Your task to perform on an android device: turn off javascript in the chrome app Image 0: 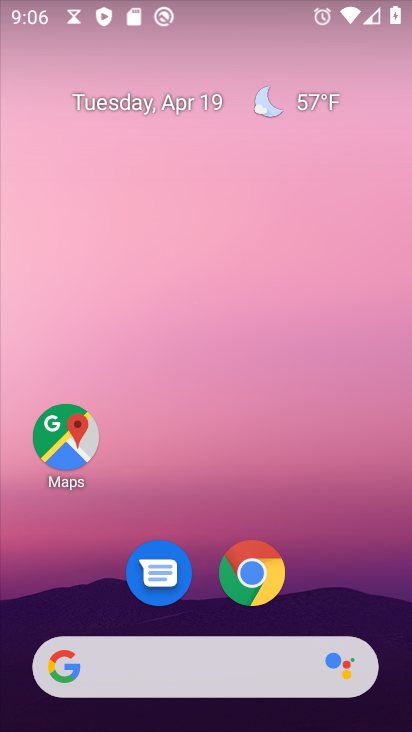
Step 0: click (249, 588)
Your task to perform on an android device: turn off javascript in the chrome app Image 1: 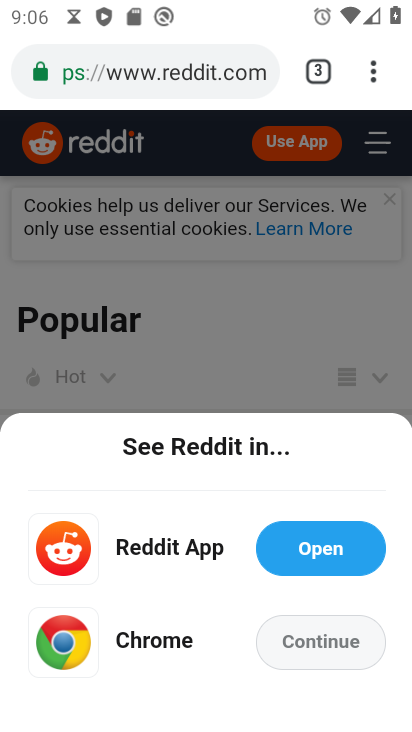
Step 1: click (367, 82)
Your task to perform on an android device: turn off javascript in the chrome app Image 2: 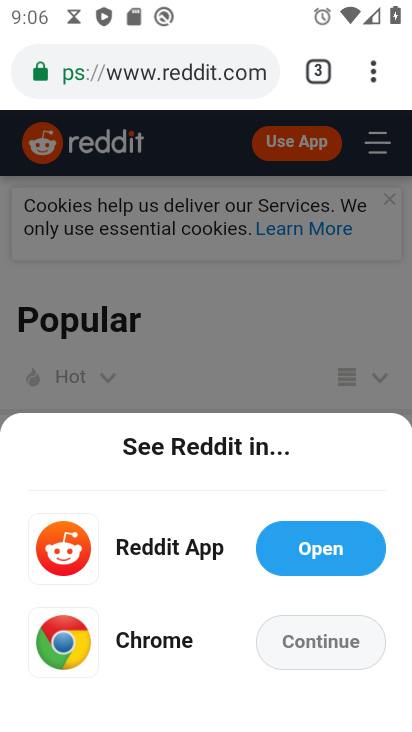
Step 2: click (367, 82)
Your task to perform on an android device: turn off javascript in the chrome app Image 3: 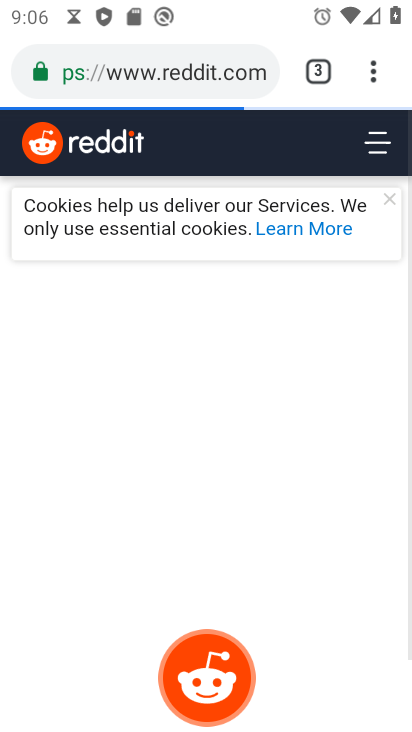
Step 3: click (367, 82)
Your task to perform on an android device: turn off javascript in the chrome app Image 4: 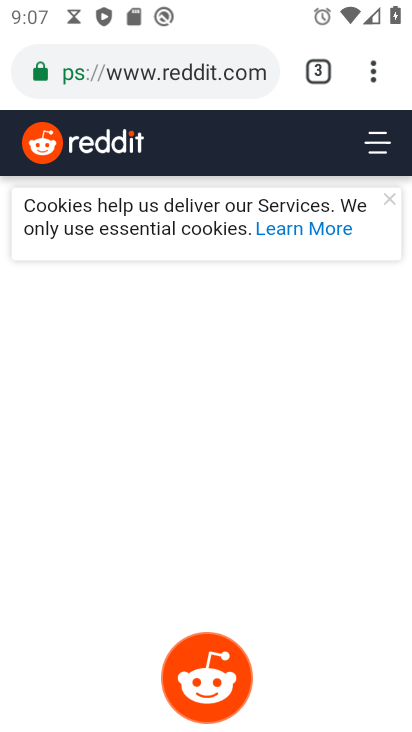
Step 4: click (381, 73)
Your task to perform on an android device: turn off javascript in the chrome app Image 5: 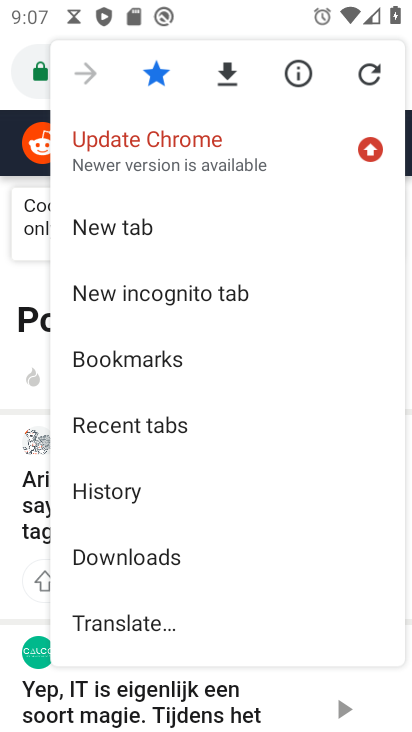
Step 5: drag from (204, 562) to (158, 248)
Your task to perform on an android device: turn off javascript in the chrome app Image 6: 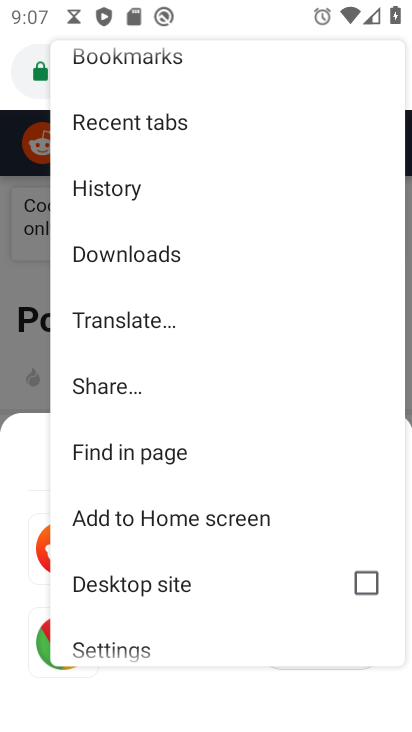
Step 6: click (106, 637)
Your task to perform on an android device: turn off javascript in the chrome app Image 7: 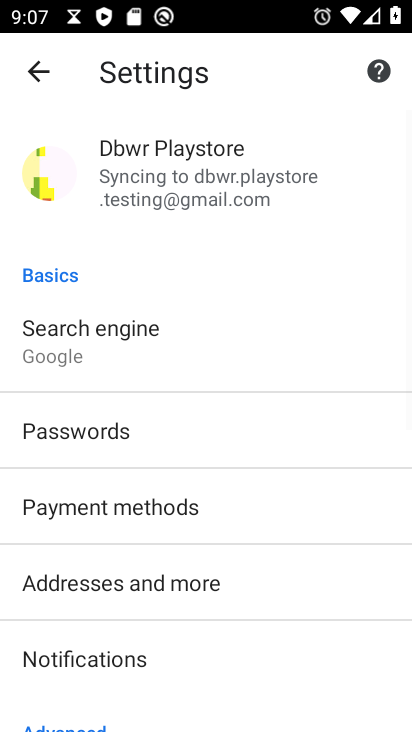
Step 7: drag from (189, 590) to (174, 218)
Your task to perform on an android device: turn off javascript in the chrome app Image 8: 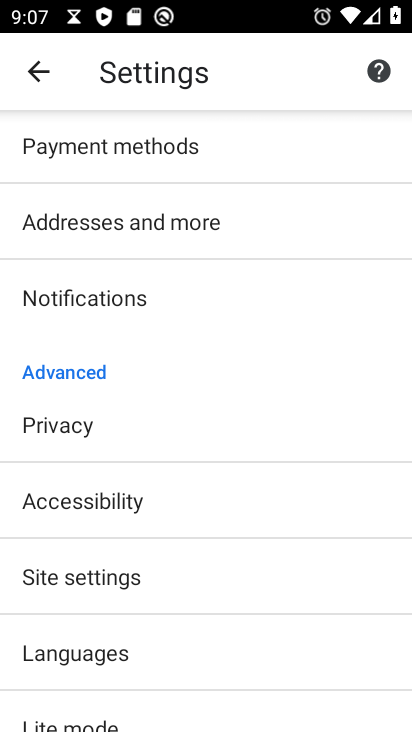
Step 8: click (89, 562)
Your task to perform on an android device: turn off javascript in the chrome app Image 9: 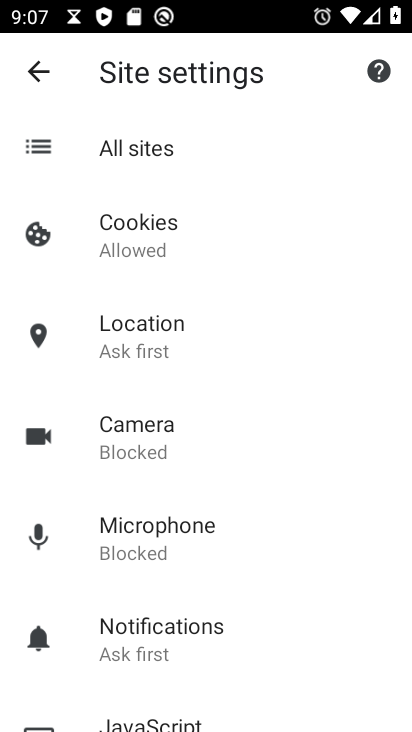
Step 9: drag from (205, 619) to (193, 265)
Your task to perform on an android device: turn off javascript in the chrome app Image 10: 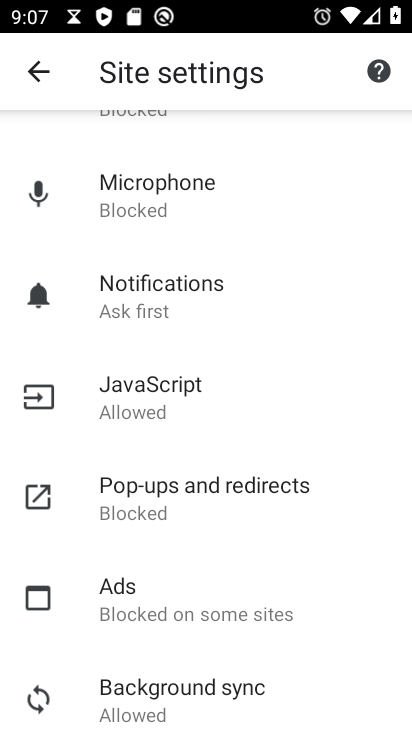
Step 10: click (147, 406)
Your task to perform on an android device: turn off javascript in the chrome app Image 11: 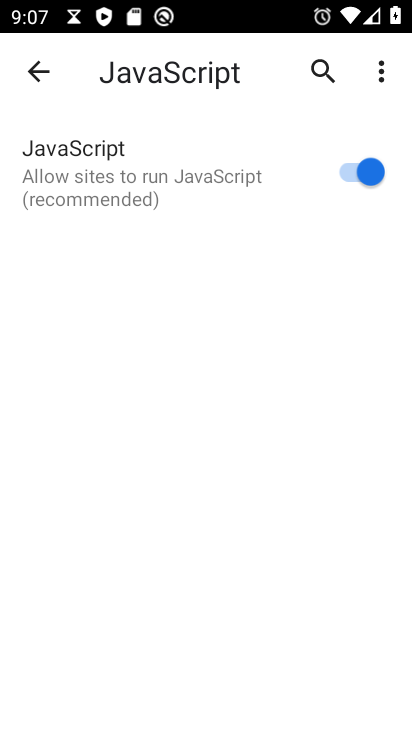
Step 11: click (340, 170)
Your task to perform on an android device: turn off javascript in the chrome app Image 12: 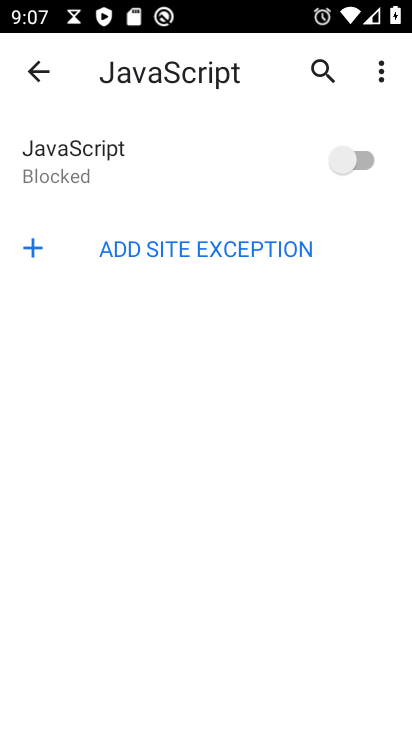
Step 12: task complete